Your task to perform on an android device: Open display settings Image 0: 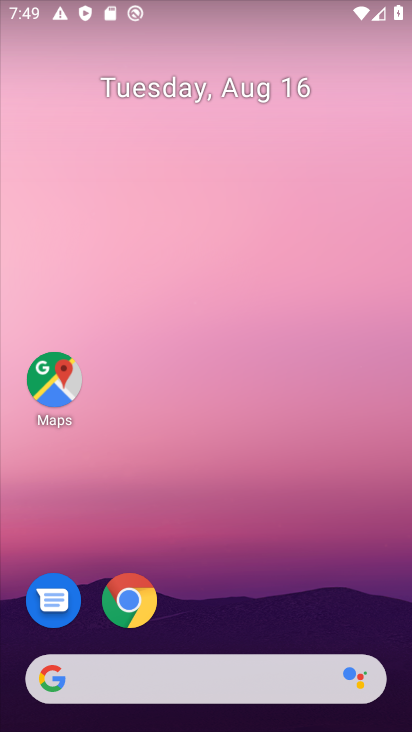
Step 0: drag from (151, 673) to (278, 67)
Your task to perform on an android device: Open display settings Image 1: 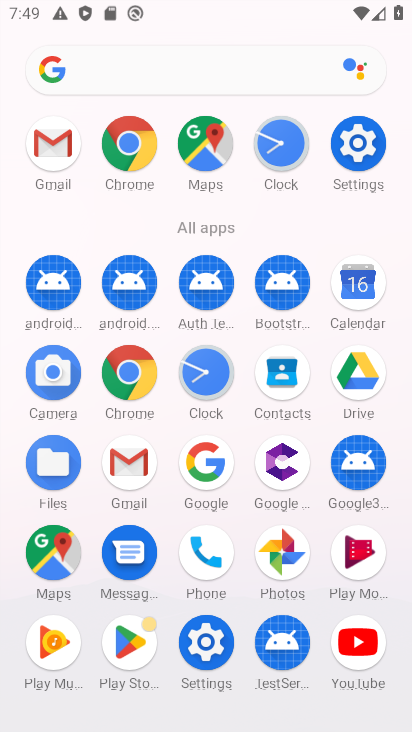
Step 1: click (370, 133)
Your task to perform on an android device: Open display settings Image 2: 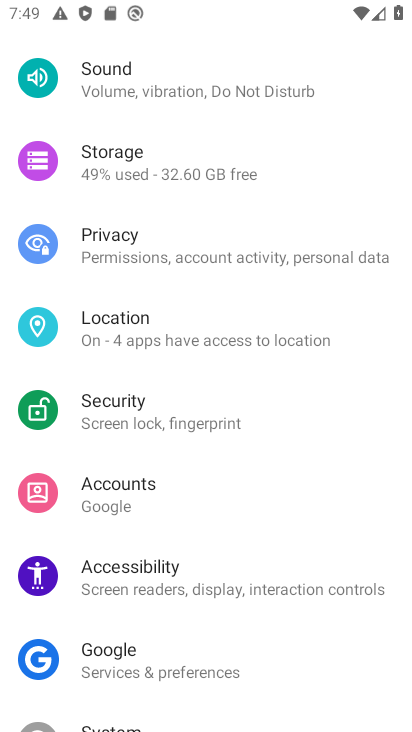
Step 2: drag from (210, 354) to (185, 592)
Your task to perform on an android device: Open display settings Image 3: 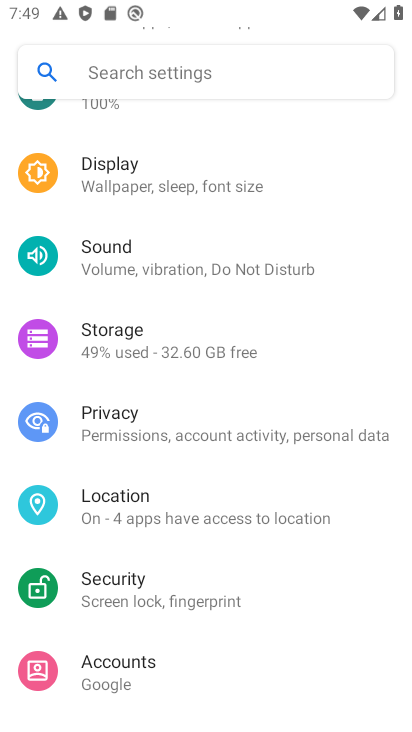
Step 3: click (120, 167)
Your task to perform on an android device: Open display settings Image 4: 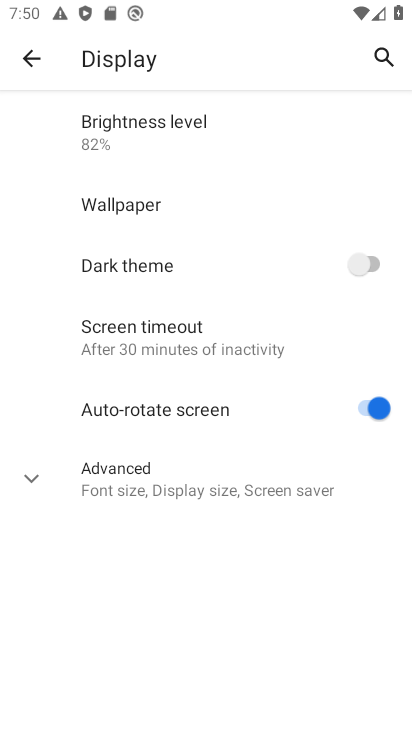
Step 4: task complete